Your task to perform on an android device: Turn on the flashlight Image 0: 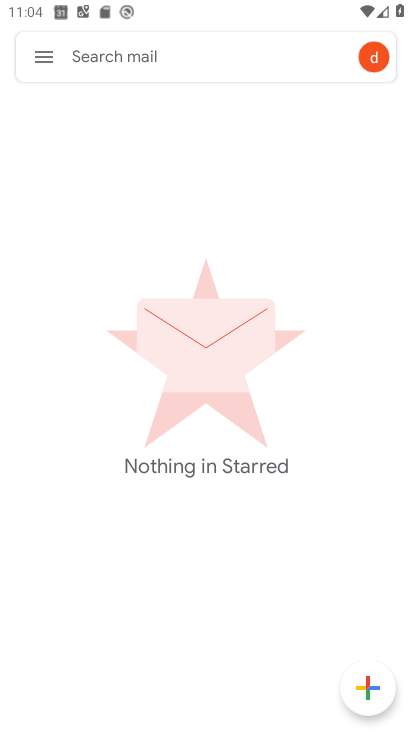
Step 0: press home button
Your task to perform on an android device: Turn on the flashlight Image 1: 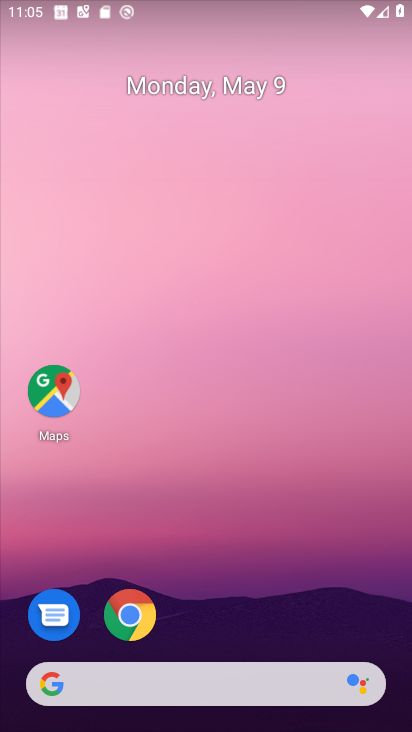
Step 1: drag from (244, 706) to (254, 213)
Your task to perform on an android device: Turn on the flashlight Image 2: 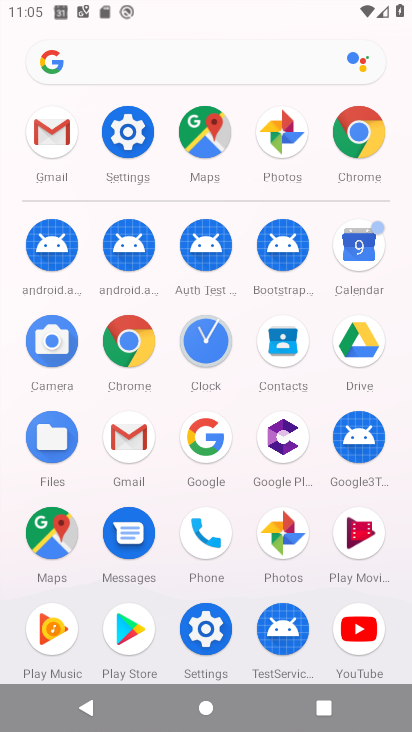
Step 2: click (125, 137)
Your task to perform on an android device: Turn on the flashlight Image 3: 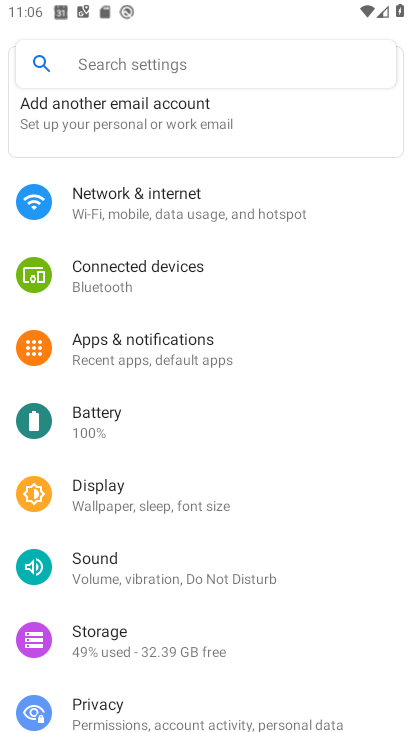
Step 3: click (152, 64)
Your task to perform on an android device: Turn on the flashlight Image 4: 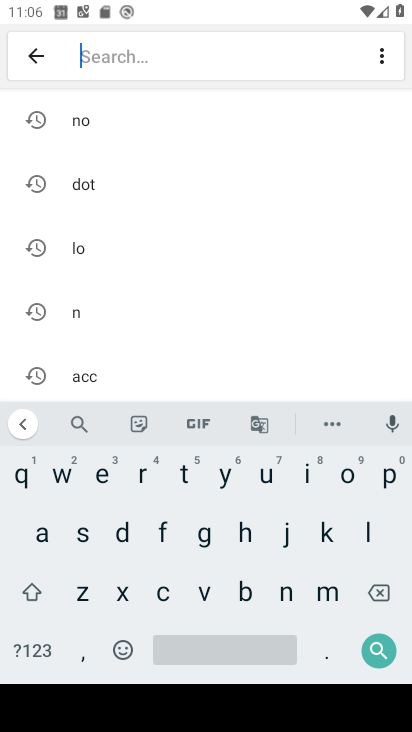
Step 4: click (168, 531)
Your task to perform on an android device: Turn on the flashlight Image 5: 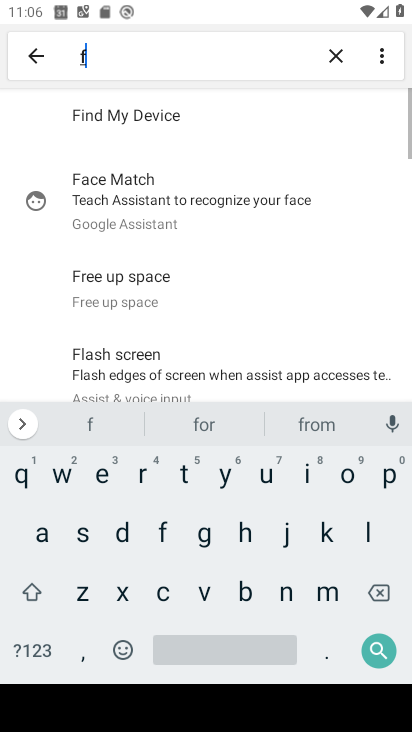
Step 5: click (370, 532)
Your task to perform on an android device: Turn on the flashlight Image 6: 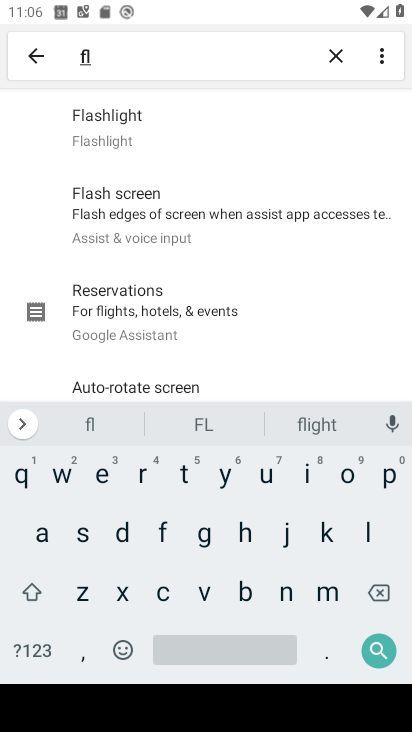
Step 6: click (140, 152)
Your task to perform on an android device: Turn on the flashlight Image 7: 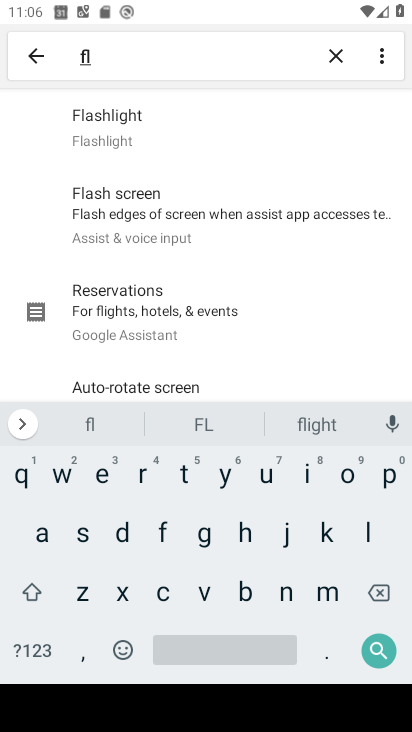
Step 7: task complete